Your task to perform on an android device: toggle notification dots Image 0: 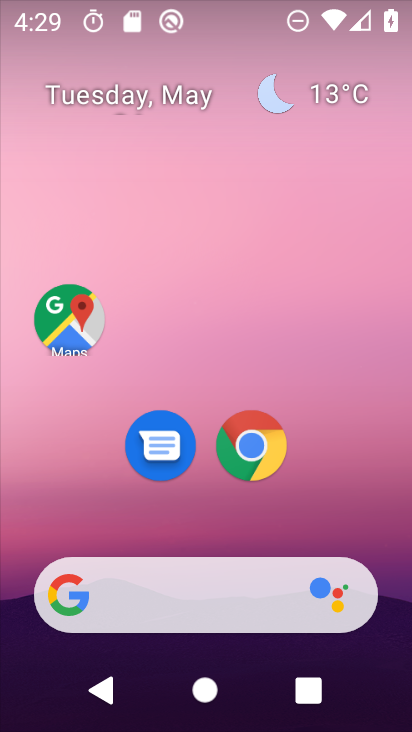
Step 0: press home button
Your task to perform on an android device: toggle notification dots Image 1: 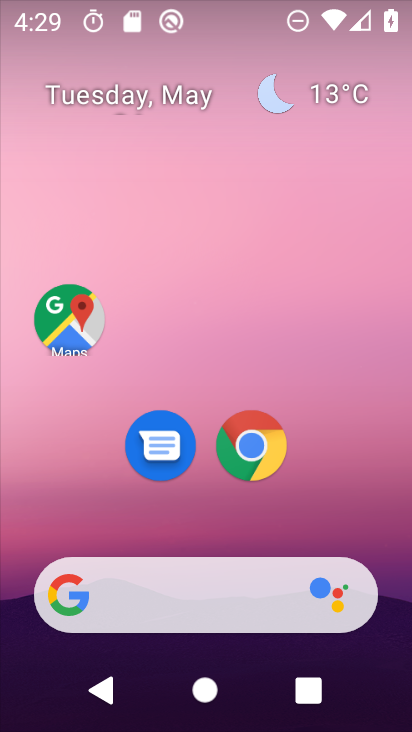
Step 1: drag from (214, 512) to (253, 128)
Your task to perform on an android device: toggle notification dots Image 2: 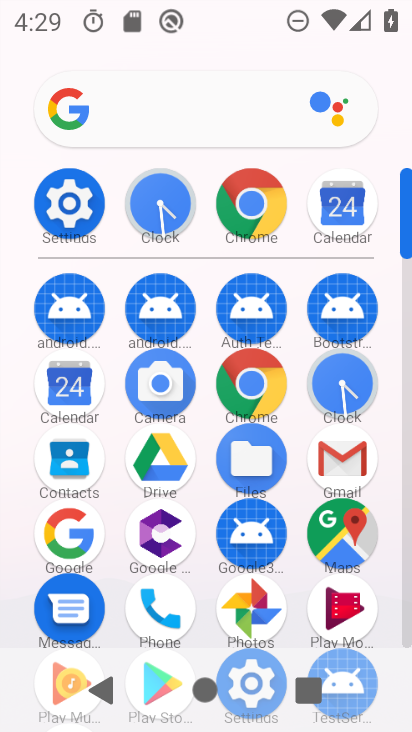
Step 2: click (69, 195)
Your task to perform on an android device: toggle notification dots Image 3: 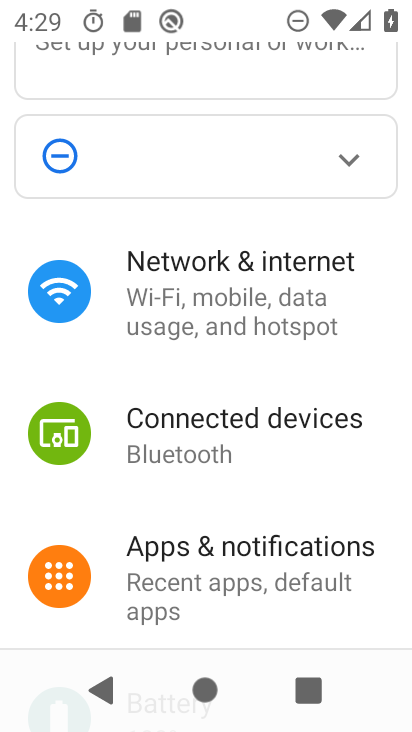
Step 3: click (110, 552)
Your task to perform on an android device: toggle notification dots Image 4: 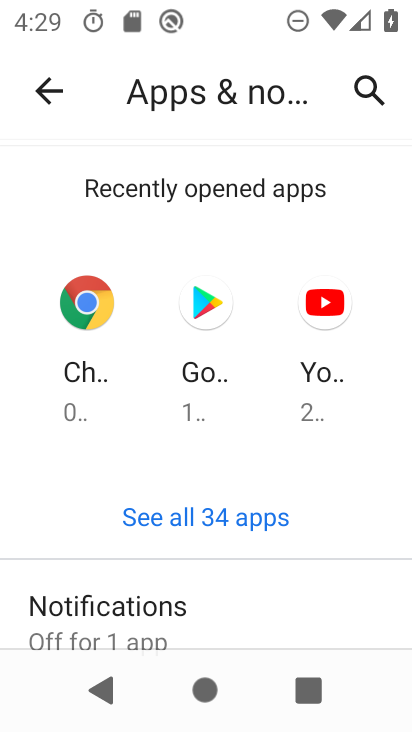
Step 4: click (221, 613)
Your task to perform on an android device: toggle notification dots Image 5: 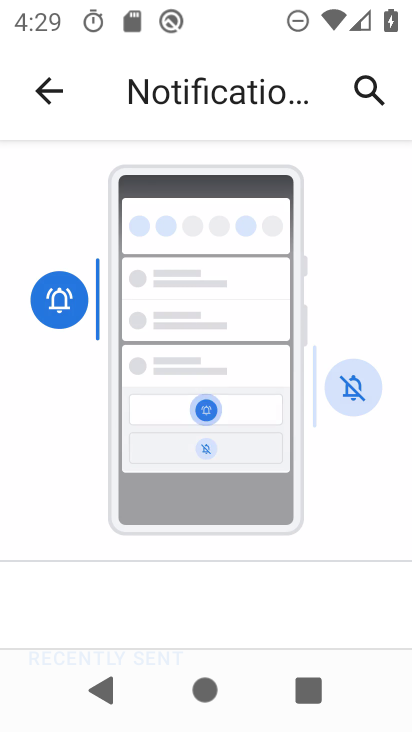
Step 5: drag from (227, 603) to (235, 84)
Your task to perform on an android device: toggle notification dots Image 6: 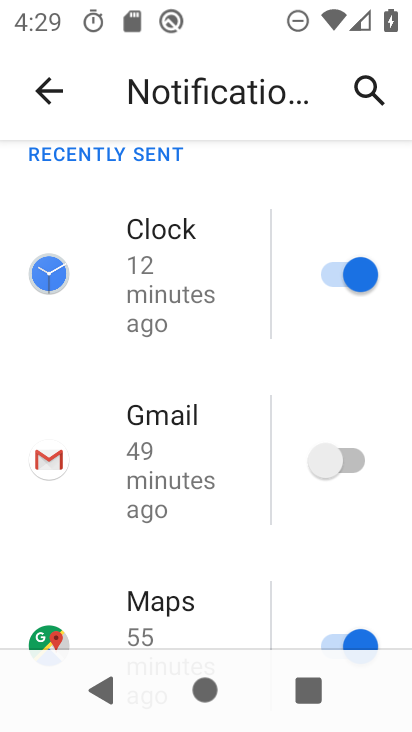
Step 6: drag from (230, 567) to (276, 82)
Your task to perform on an android device: toggle notification dots Image 7: 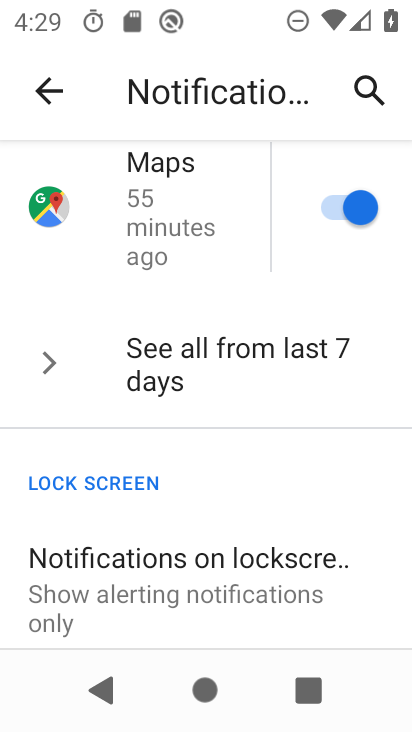
Step 7: drag from (198, 589) to (263, 137)
Your task to perform on an android device: toggle notification dots Image 8: 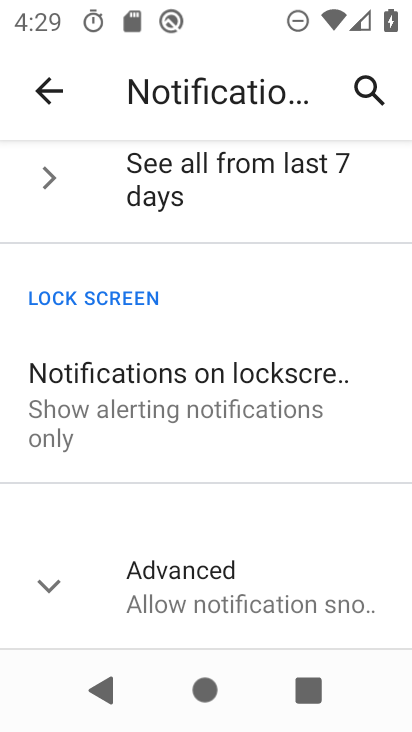
Step 8: click (47, 582)
Your task to perform on an android device: toggle notification dots Image 9: 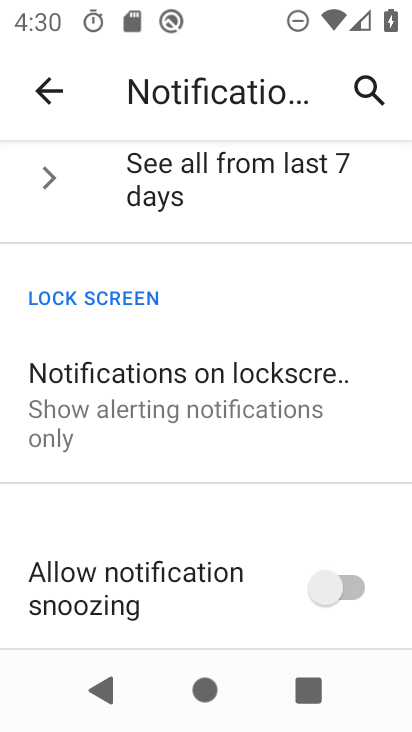
Step 9: drag from (199, 631) to (214, 71)
Your task to perform on an android device: toggle notification dots Image 10: 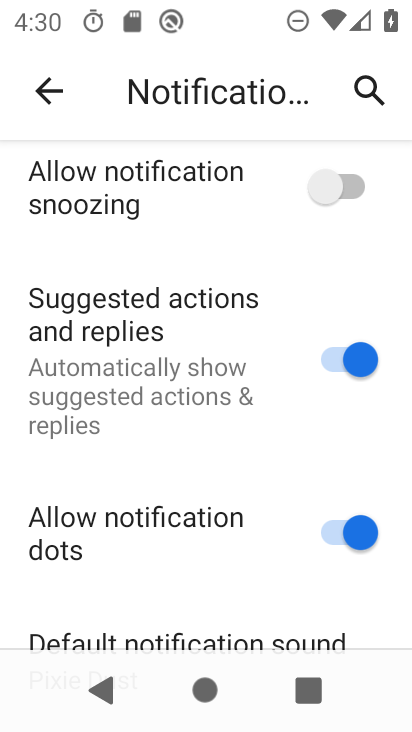
Step 10: drag from (228, 599) to (243, 88)
Your task to perform on an android device: toggle notification dots Image 11: 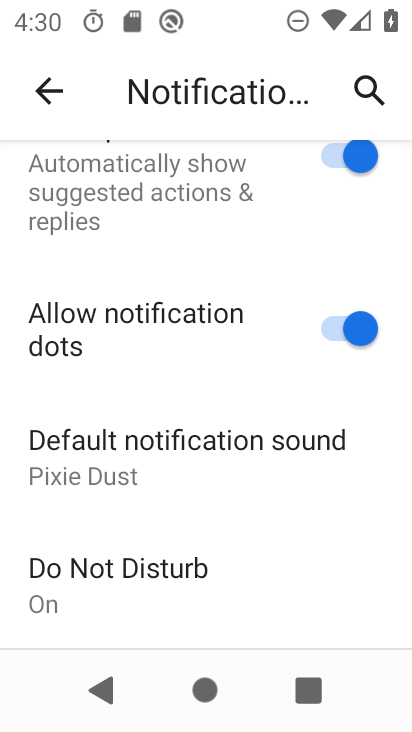
Step 11: click (338, 327)
Your task to perform on an android device: toggle notification dots Image 12: 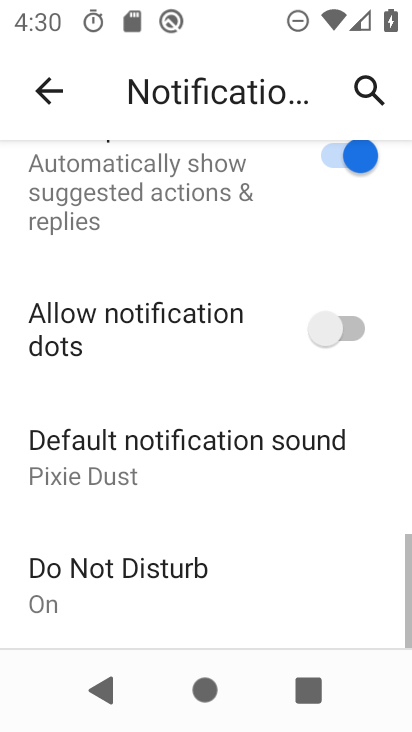
Step 12: task complete